Your task to perform on an android device: change the clock display to analog Image 0: 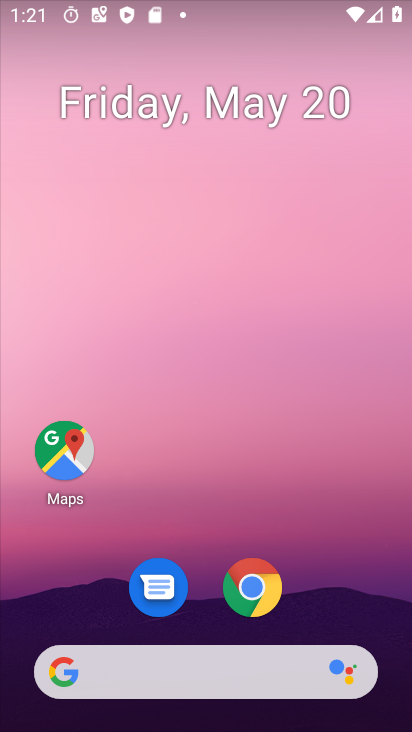
Step 0: drag from (326, 570) to (289, 102)
Your task to perform on an android device: change the clock display to analog Image 1: 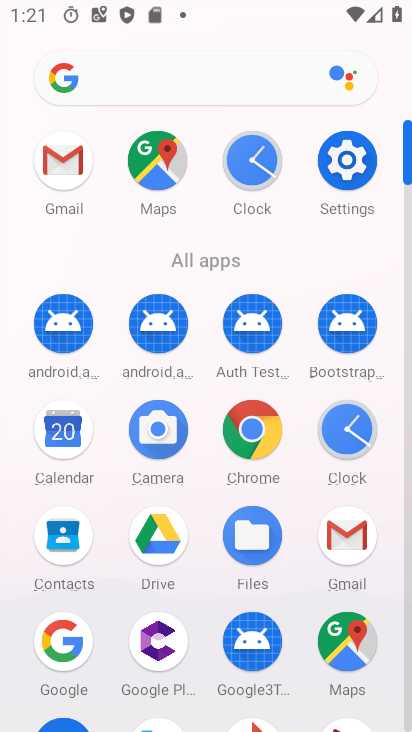
Step 1: click (268, 161)
Your task to perform on an android device: change the clock display to analog Image 2: 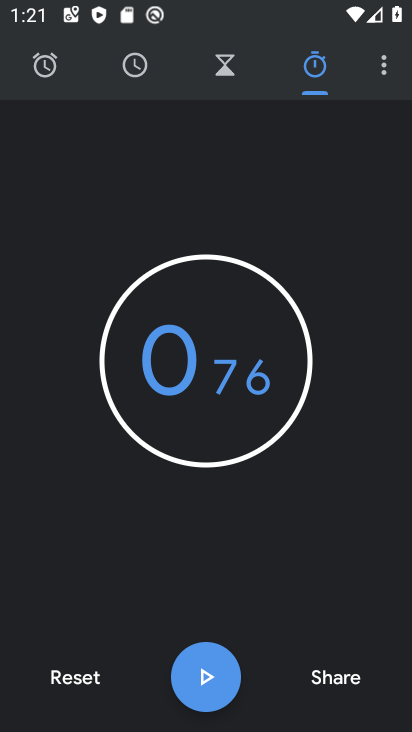
Step 2: click (391, 64)
Your task to perform on an android device: change the clock display to analog Image 3: 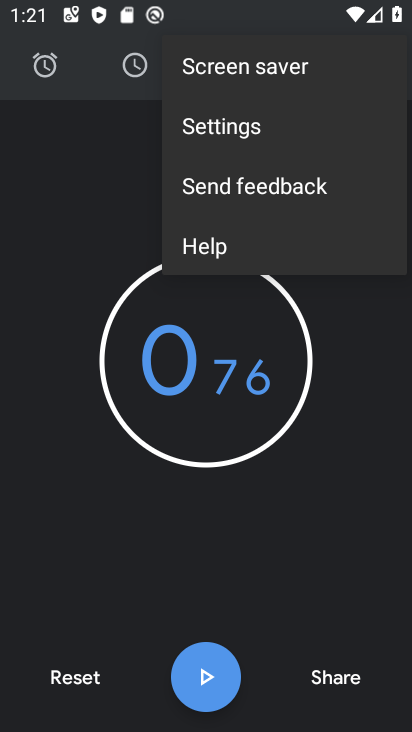
Step 3: click (239, 143)
Your task to perform on an android device: change the clock display to analog Image 4: 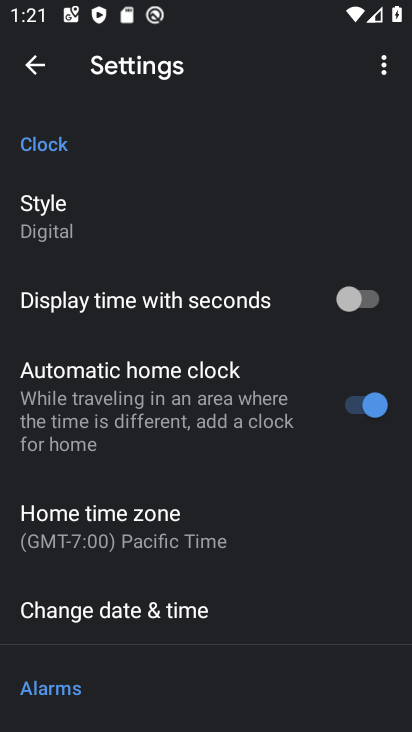
Step 4: click (87, 212)
Your task to perform on an android device: change the clock display to analog Image 5: 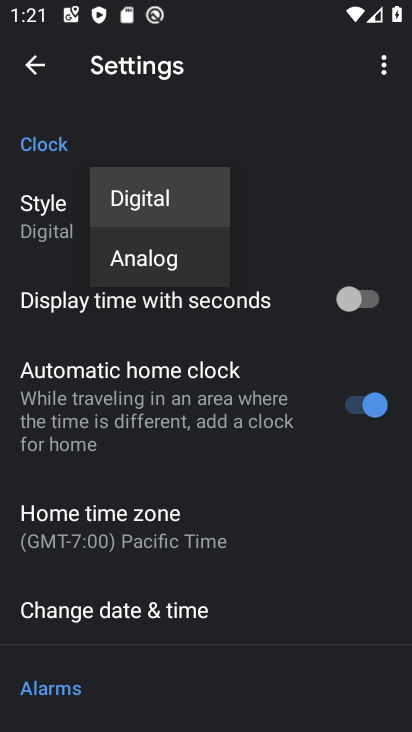
Step 5: click (135, 263)
Your task to perform on an android device: change the clock display to analog Image 6: 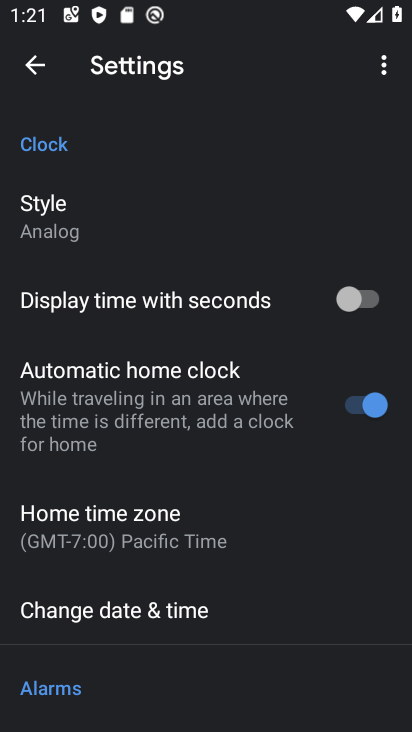
Step 6: task complete